Your task to perform on an android device: Open the stopwatch Image 0: 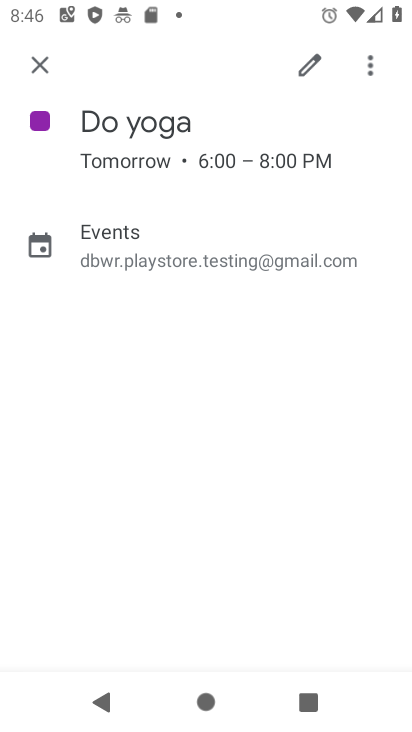
Step 0: press home button
Your task to perform on an android device: Open the stopwatch Image 1: 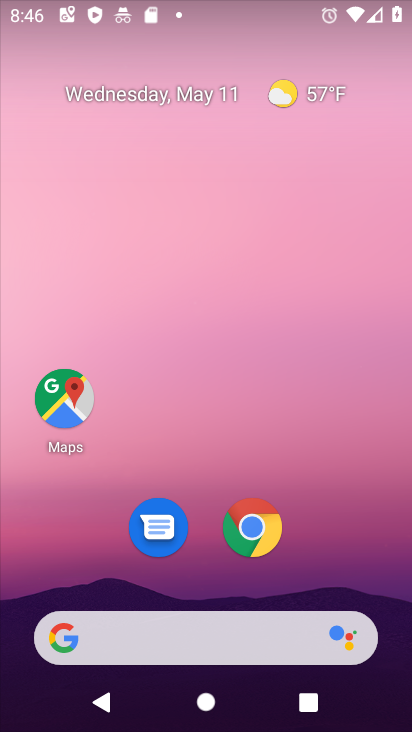
Step 1: drag from (368, 197) to (371, 4)
Your task to perform on an android device: Open the stopwatch Image 2: 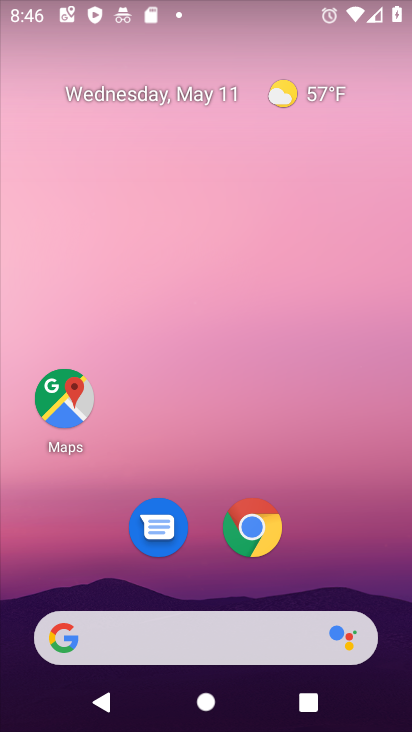
Step 2: drag from (378, 576) to (352, 7)
Your task to perform on an android device: Open the stopwatch Image 3: 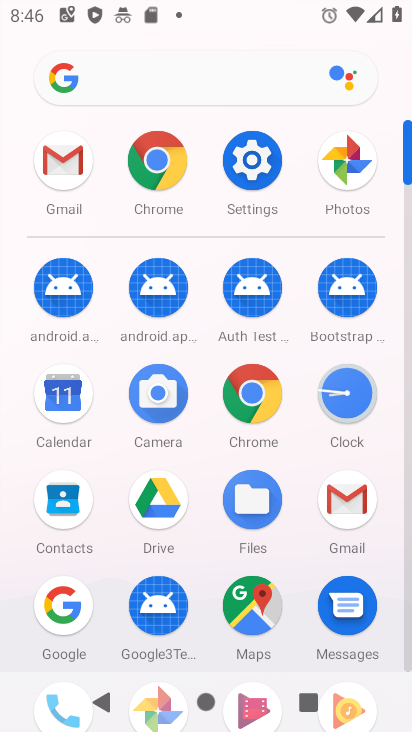
Step 3: click (351, 393)
Your task to perform on an android device: Open the stopwatch Image 4: 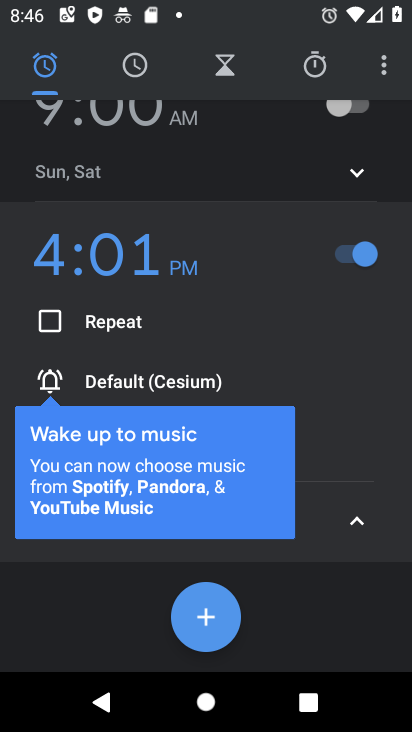
Step 4: click (318, 68)
Your task to perform on an android device: Open the stopwatch Image 5: 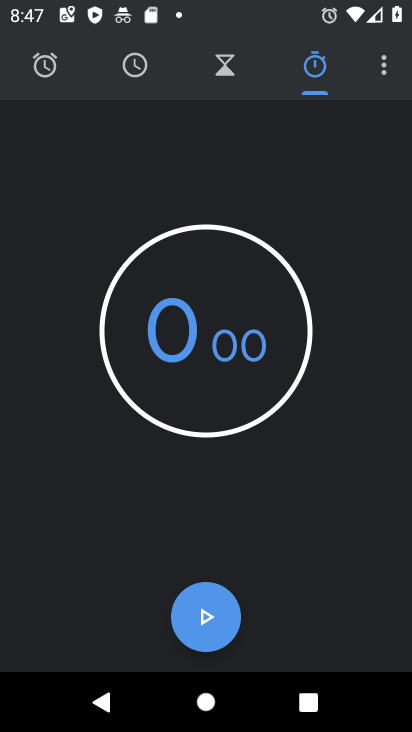
Step 5: task complete